Your task to perform on an android device: Go to Google maps Image 0: 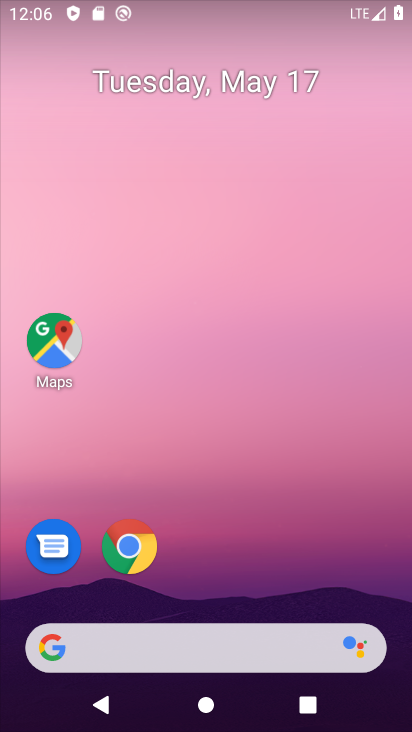
Step 0: drag from (338, 418) to (16, 536)
Your task to perform on an android device: Go to Google maps Image 1: 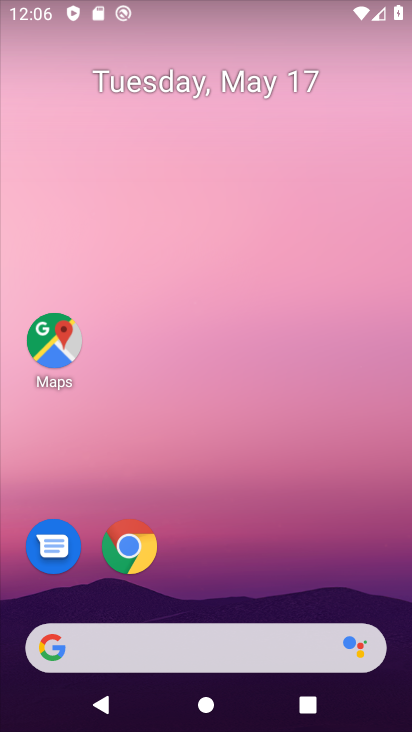
Step 1: drag from (265, 577) to (277, 113)
Your task to perform on an android device: Go to Google maps Image 2: 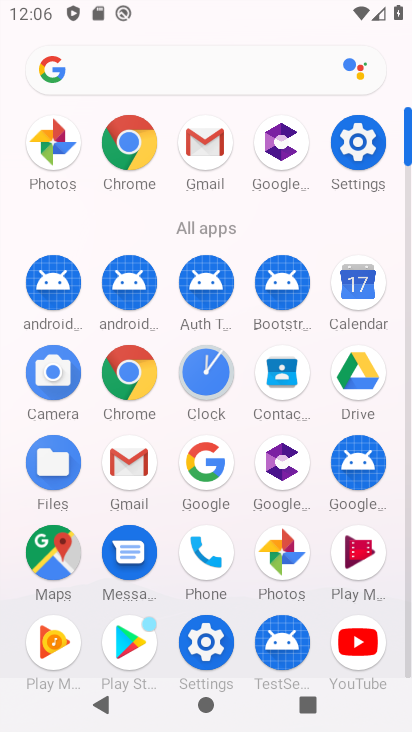
Step 2: drag from (274, 592) to (257, 273)
Your task to perform on an android device: Go to Google maps Image 3: 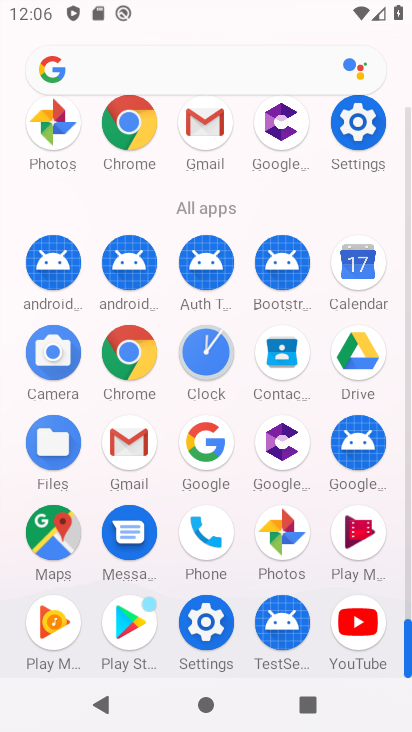
Step 3: click (218, 448)
Your task to perform on an android device: Go to Google maps Image 4: 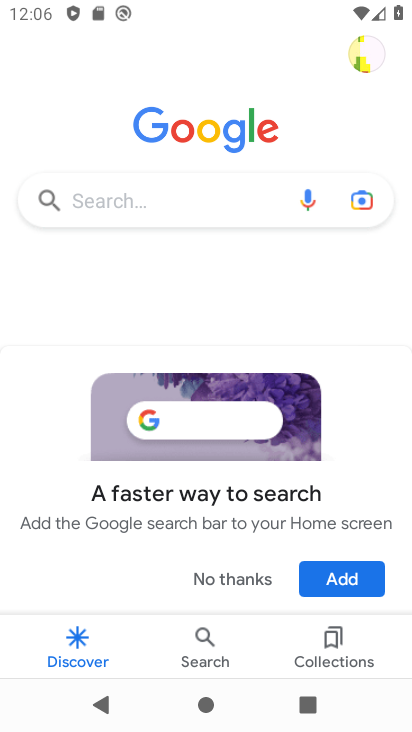
Step 4: press home button
Your task to perform on an android device: Go to Google maps Image 5: 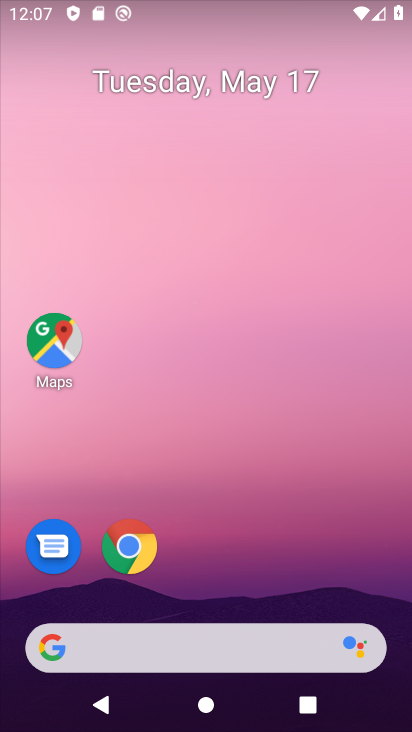
Step 5: click (90, 326)
Your task to perform on an android device: Go to Google maps Image 6: 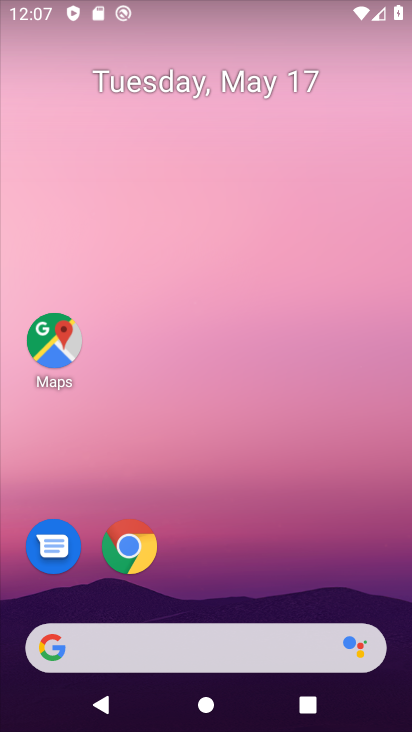
Step 6: click (66, 343)
Your task to perform on an android device: Go to Google maps Image 7: 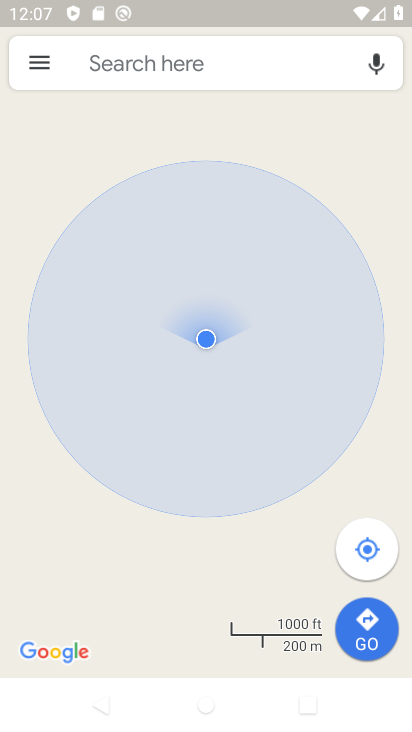
Step 7: task complete